Your task to perform on an android device: change the upload size in google photos Image 0: 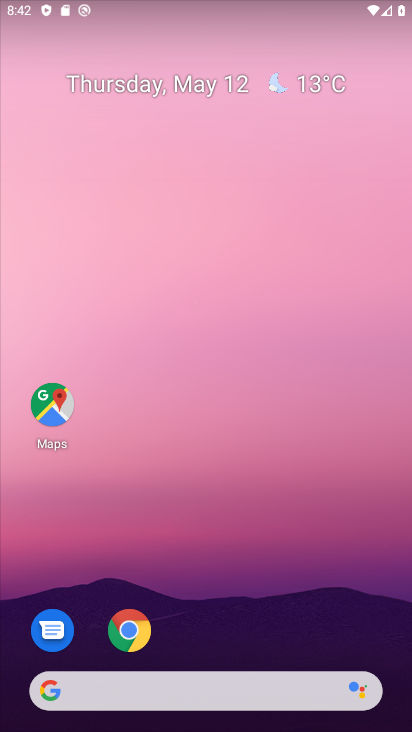
Step 0: drag from (196, 685) to (242, 171)
Your task to perform on an android device: change the upload size in google photos Image 1: 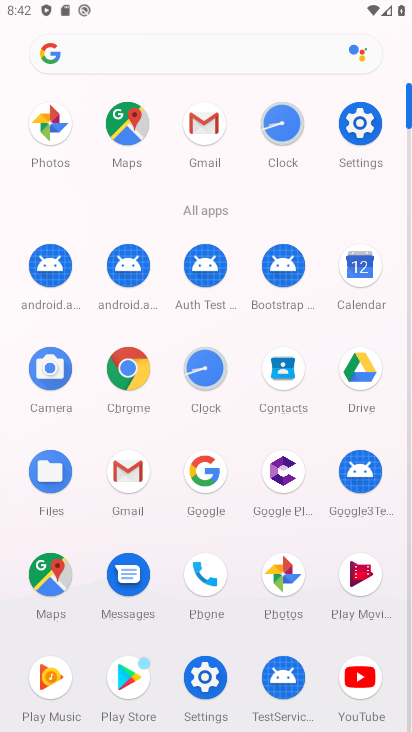
Step 1: click (286, 590)
Your task to perform on an android device: change the upload size in google photos Image 2: 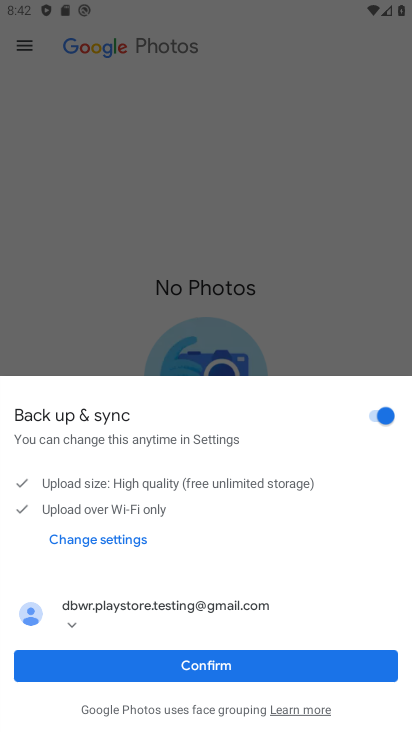
Step 2: click (264, 669)
Your task to perform on an android device: change the upload size in google photos Image 3: 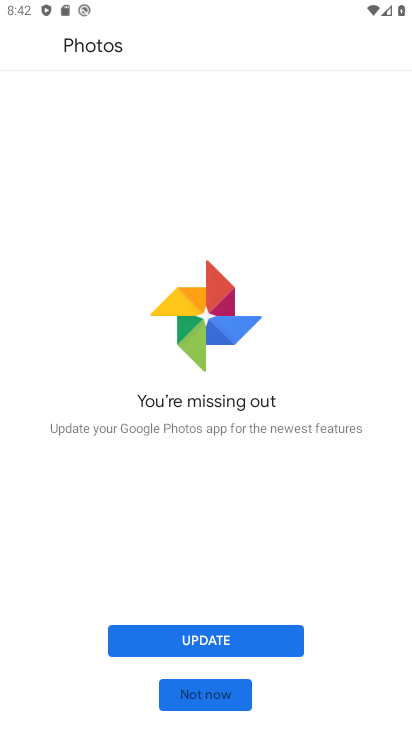
Step 3: click (196, 703)
Your task to perform on an android device: change the upload size in google photos Image 4: 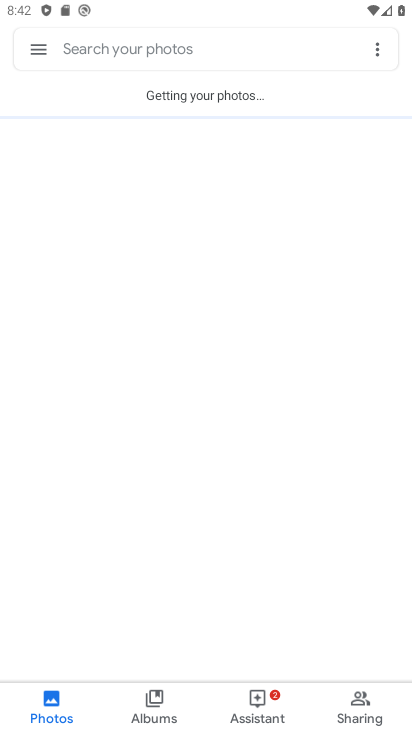
Step 4: click (60, 40)
Your task to perform on an android device: change the upload size in google photos Image 5: 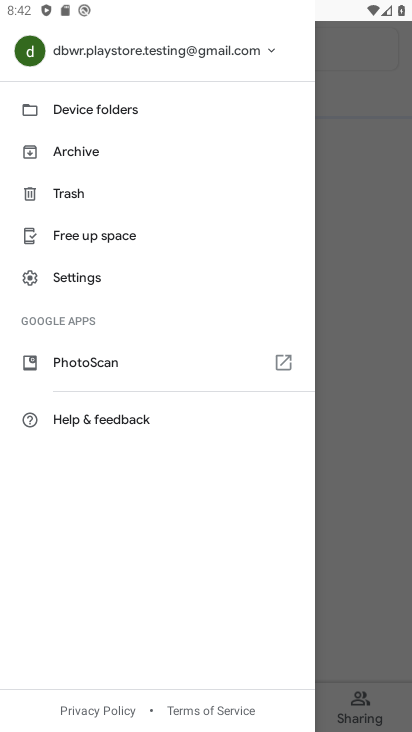
Step 5: click (102, 278)
Your task to perform on an android device: change the upload size in google photos Image 6: 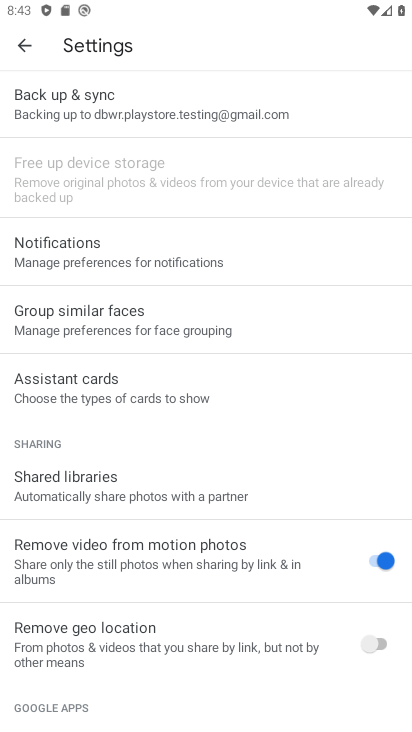
Step 6: click (87, 93)
Your task to perform on an android device: change the upload size in google photos Image 7: 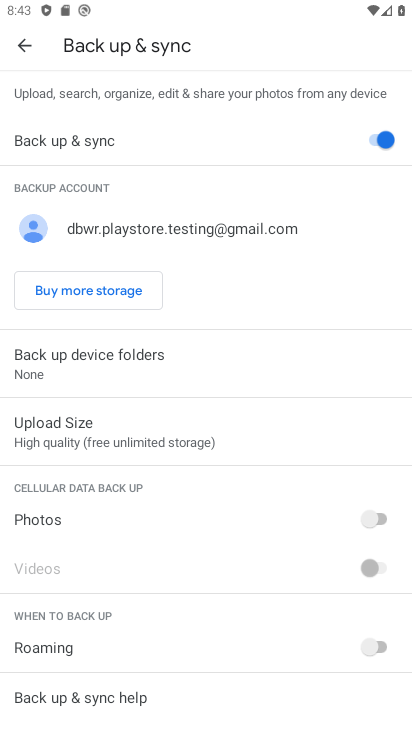
Step 7: drag from (188, 617) to (287, 211)
Your task to perform on an android device: change the upload size in google photos Image 8: 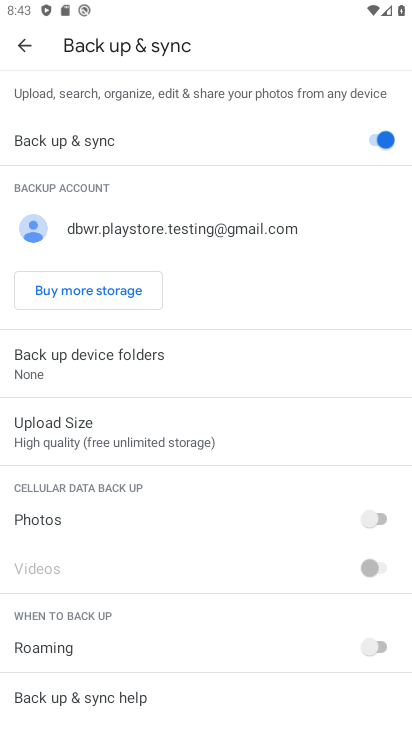
Step 8: click (164, 432)
Your task to perform on an android device: change the upload size in google photos Image 9: 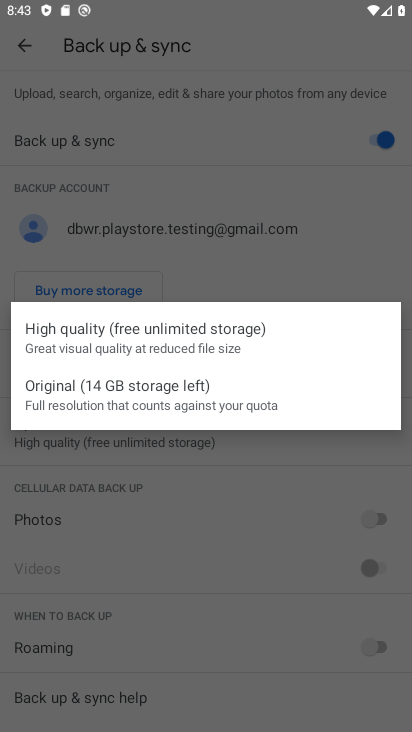
Step 9: click (104, 395)
Your task to perform on an android device: change the upload size in google photos Image 10: 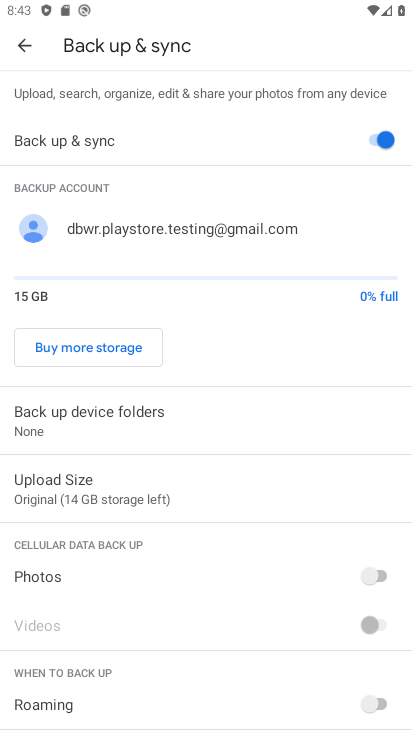
Step 10: task complete